Your task to perform on an android device: Go to CNN.com Image 0: 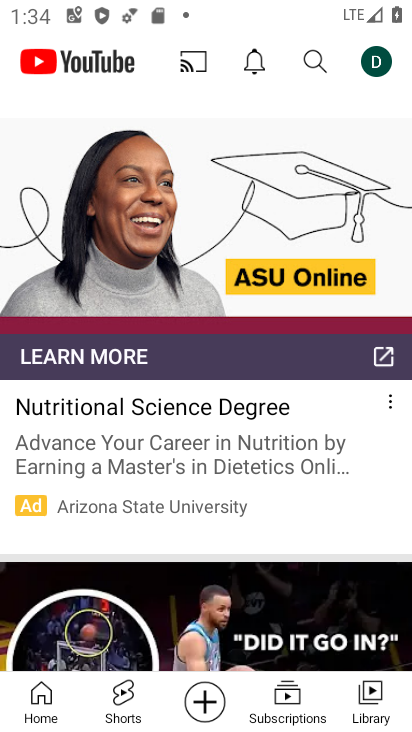
Step 0: press home button
Your task to perform on an android device: Go to CNN.com Image 1: 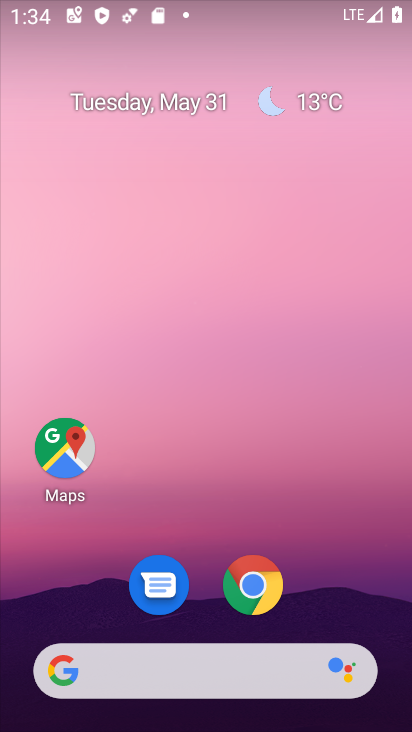
Step 1: click (234, 675)
Your task to perform on an android device: Go to CNN.com Image 2: 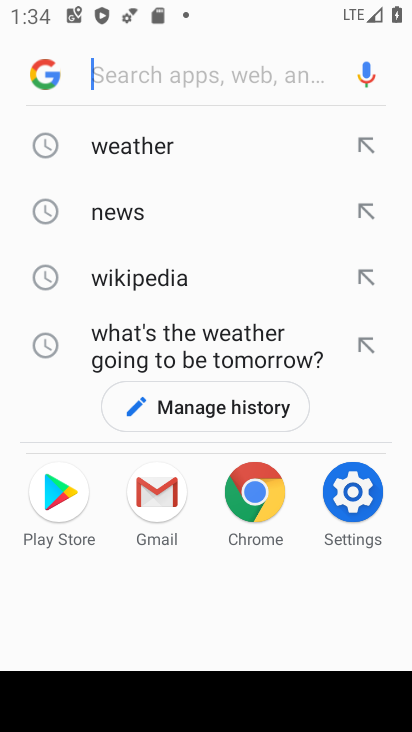
Step 2: type "cnn.com"
Your task to perform on an android device: Go to CNN.com Image 3: 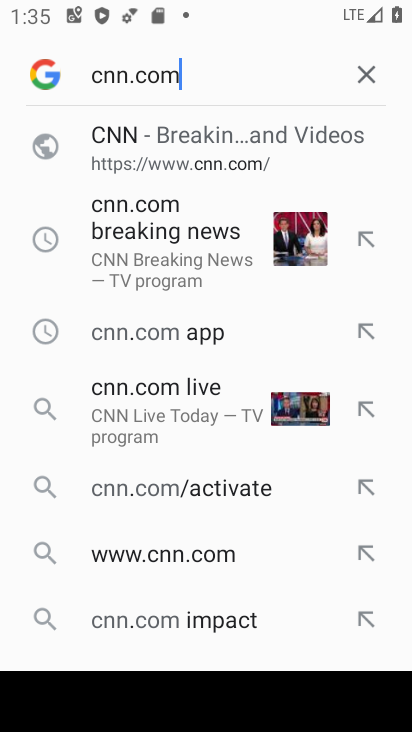
Step 3: click (163, 158)
Your task to perform on an android device: Go to CNN.com Image 4: 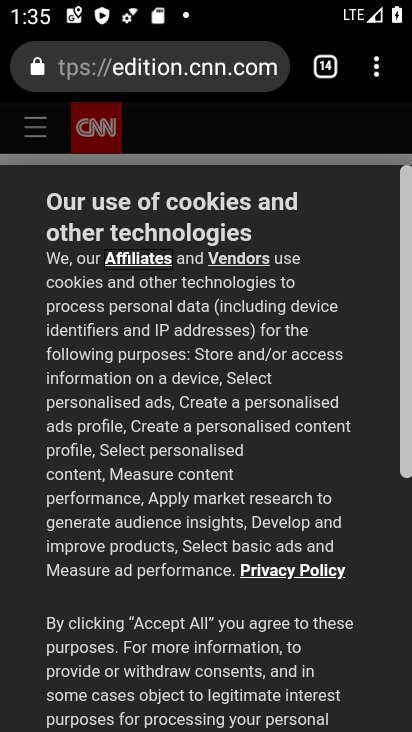
Step 4: task complete